Your task to perform on an android device: change the upload size in google photos Image 0: 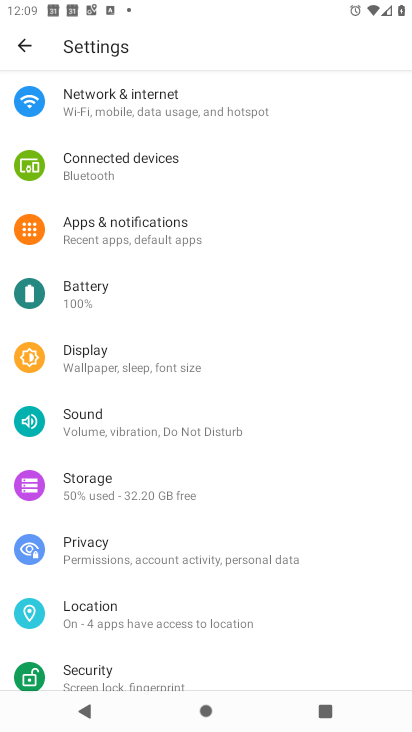
Step 0: press home button
Your task to perform on an android device: change the upload size in google photos Image 1: 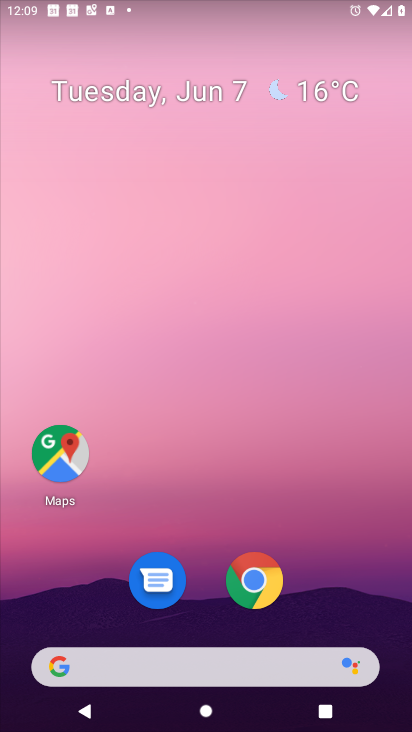
Step 1: drag from (349, 537) to (410, 514)
Your task to perform on an android device: change the upload size in google photos Image 2: 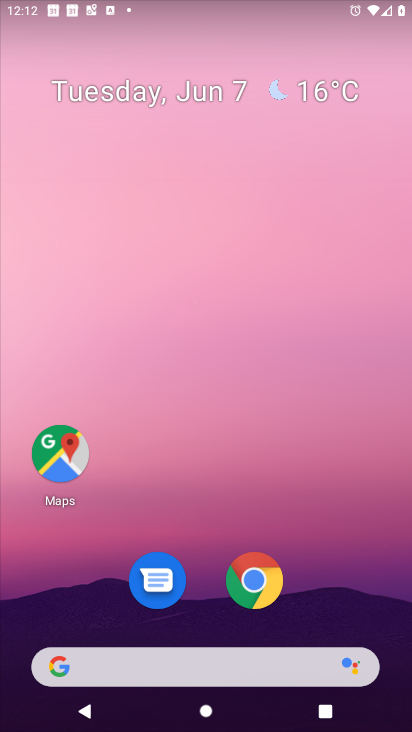
Step 2: drag from (381, 600) to (228, 0)
Your task to perform on an android device: change the upload size in google photos Image 3: 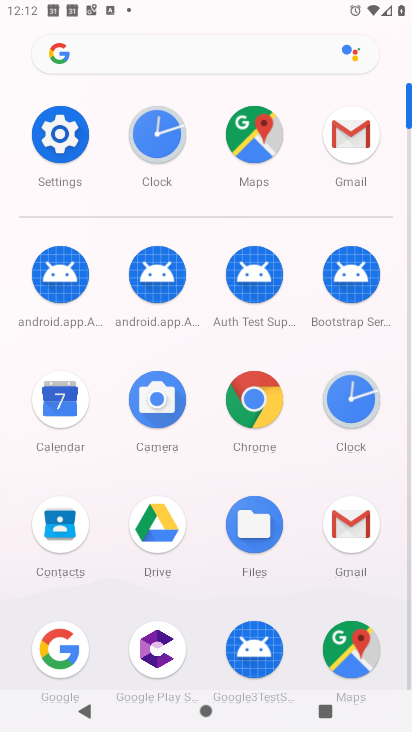
Step 3: drag from (388, 631) to (367, 114)
Your task to perform on an android device: change the upload size in google photos Image 4: 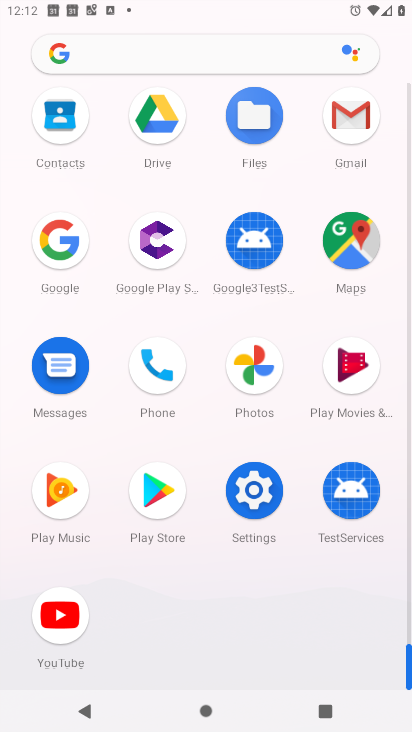
Step 4: click (251, 368)
Your task to perform on an android device: change the upload size in google photos Image 5: 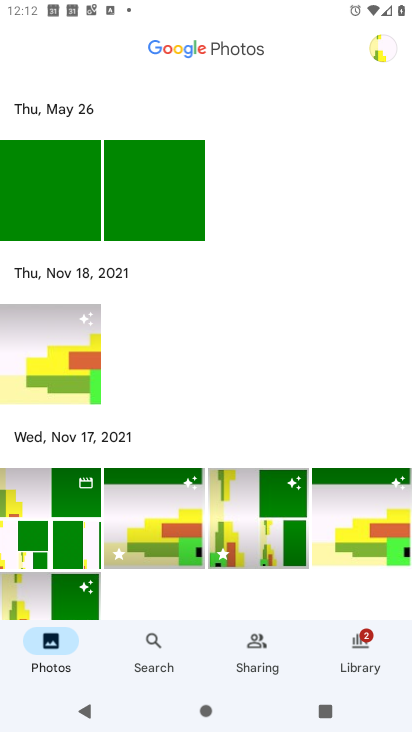
Step 5: click (380, 37)
Your task to perform on an android device: change the upload size in google photos Image 6: 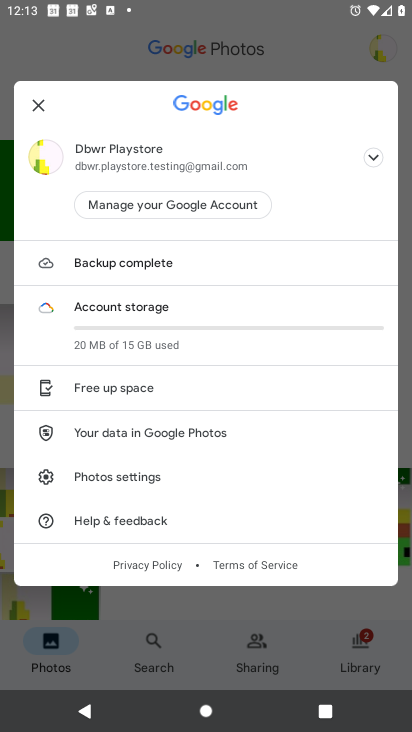
Step 6: click (124, 272)
Your task to perform on an android device: change the upload size in google photos Image 7: 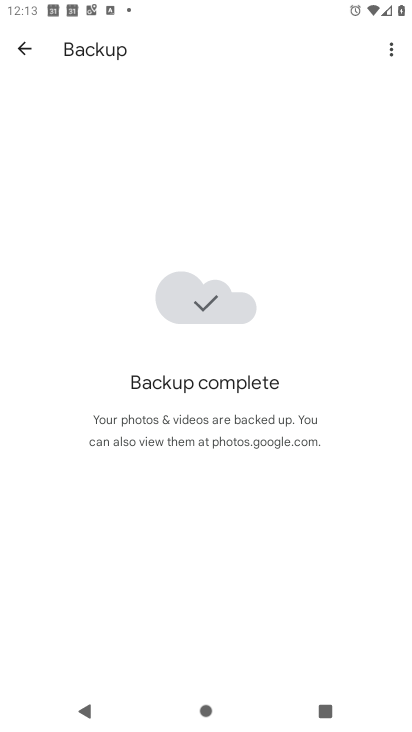
Step 7: task complete